Your task to perform on an android device: search for starred emails in the gmail app Image 0: 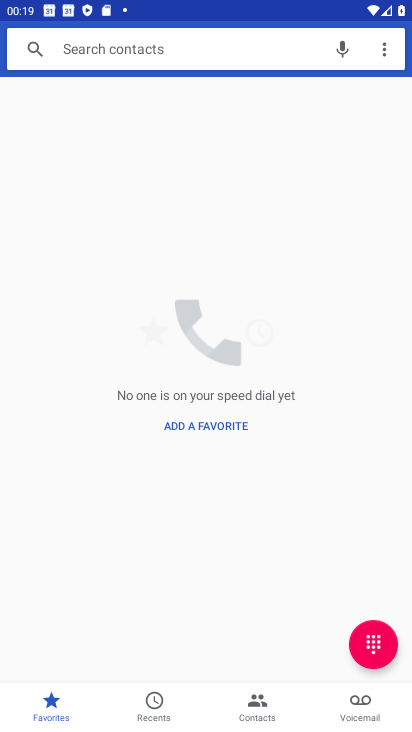
Step 0: press home button
Your task to perform on an android device: search for starred emails in the gmail app Image 1: 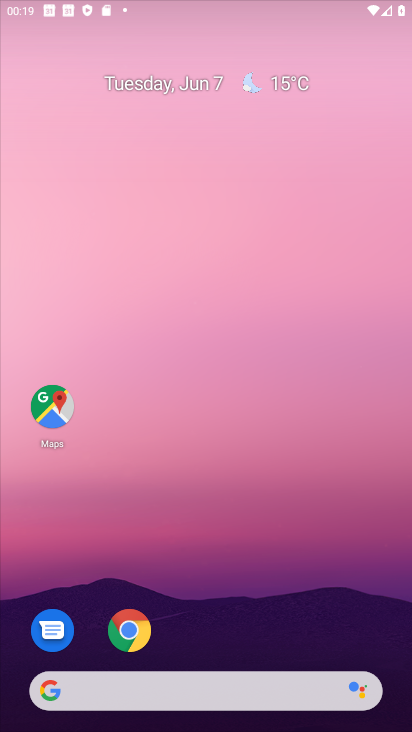
Step 1: drag from (305, 569) to (312, 118)
Your task to perform on an android device: search for starred emails in the gmail app Image 2: 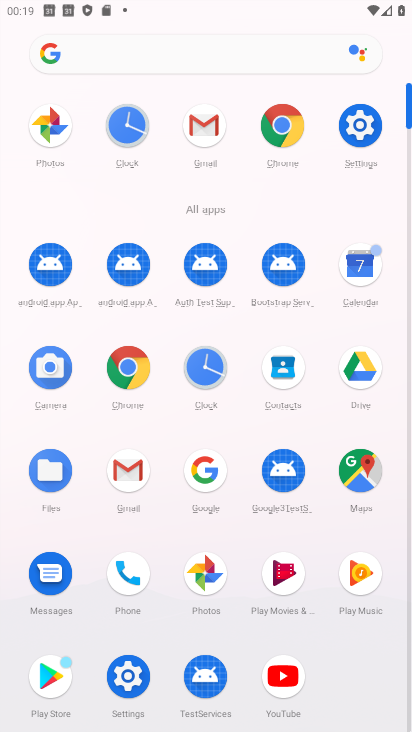
Step 2: click (126, 467)
Your task to perform on an android device: search for starred emails in the gmail app Image 3: 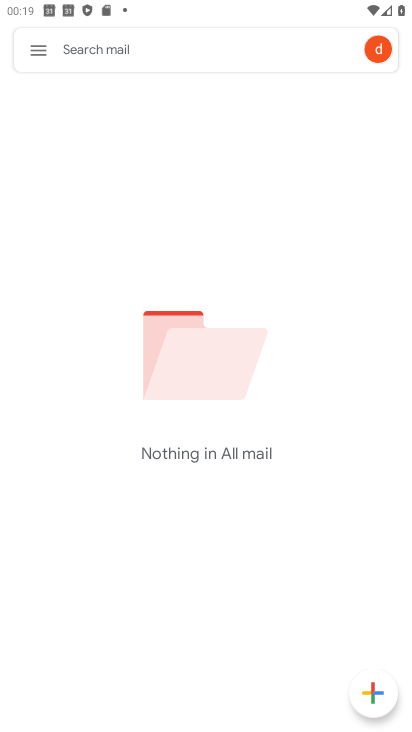
Step 3: click (38, 43)
Your task to perform on an android device: search for starred emails in the gmail app Image 4: 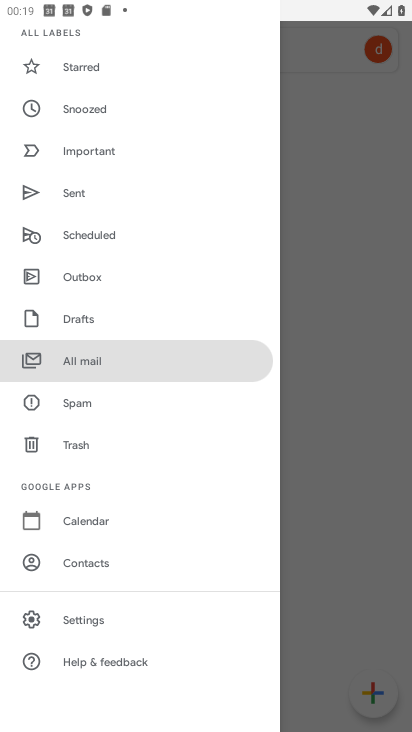
Step 4: click (128, 70)
Your task to perform on an android device: search for starred emails in the gmail app Image 5: 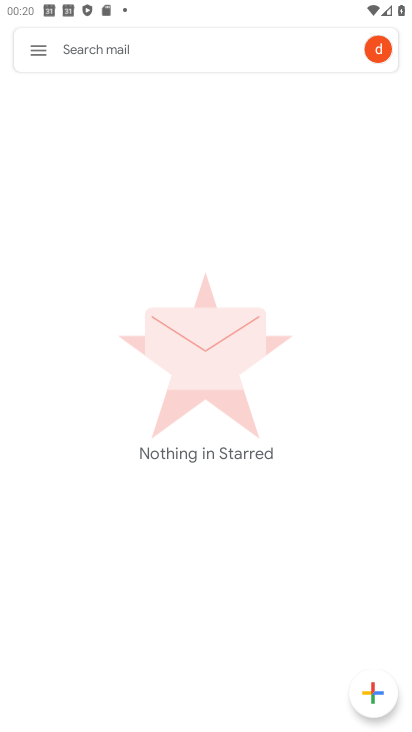
Step 5: click (43, 50)
Your task to perform on an android device: search for starred emails in the gmail app Image 6: 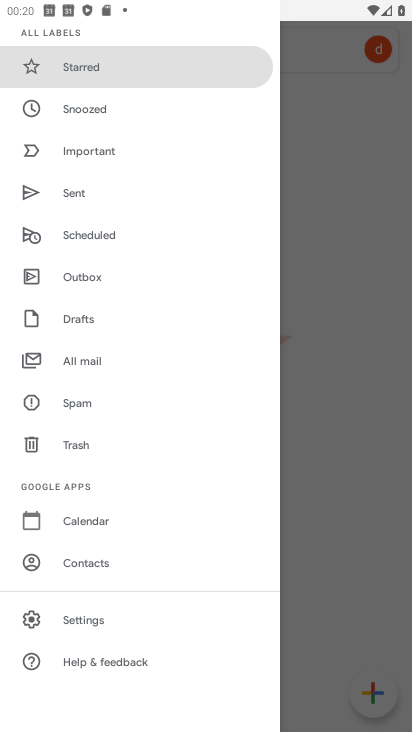
Step 6: task complete